Your task to perform on an android device: turn on bluetooth scan Image 0: 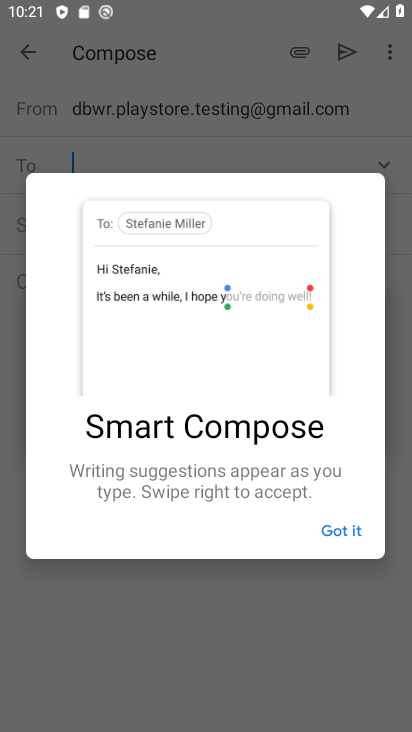
Step 0: press home button
Your task to perform on an android device: turn on bluetooth scan Image 1: 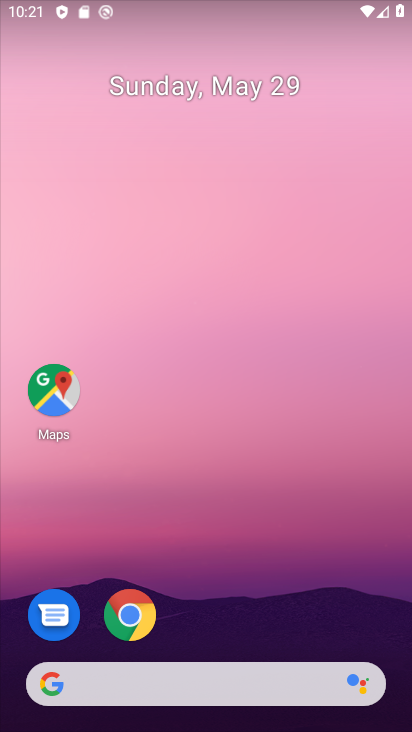
Step 1: drag from (358, 591) to (371, 164)
Your task to perform on an android device: turn on bluetooth scan Image 2: 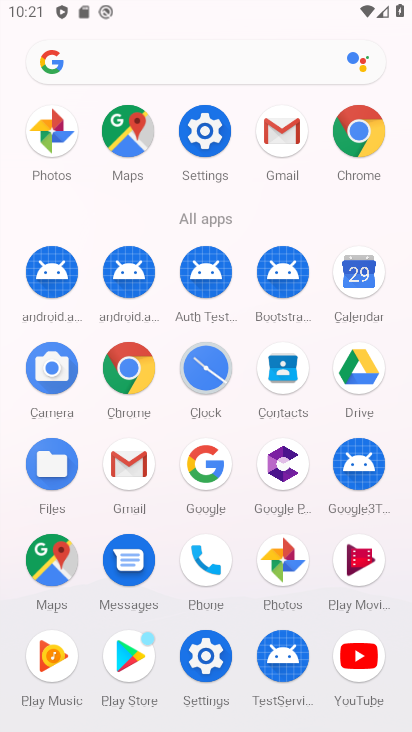
Step 2: click (213, 676)
Your task to perform on an android device: turn on bluetooth scan Image 3: 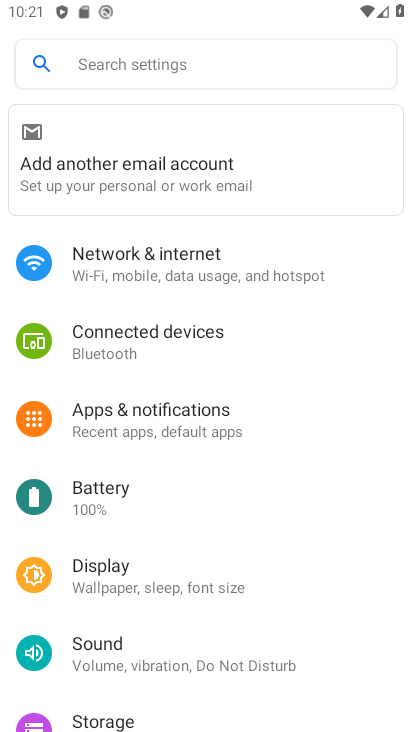
Step 3: drag from (344, 307) to (357, 490)
Your task to perform on an android device: turn on bluetooth scan Image 4: 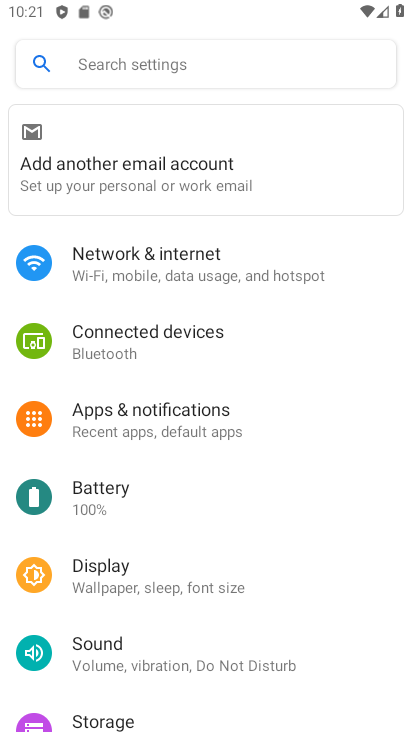
Step 4: drag from (356, 600) to (360, 515)
Your task to perform on an android device: turn on bluetooth scan Image 5: 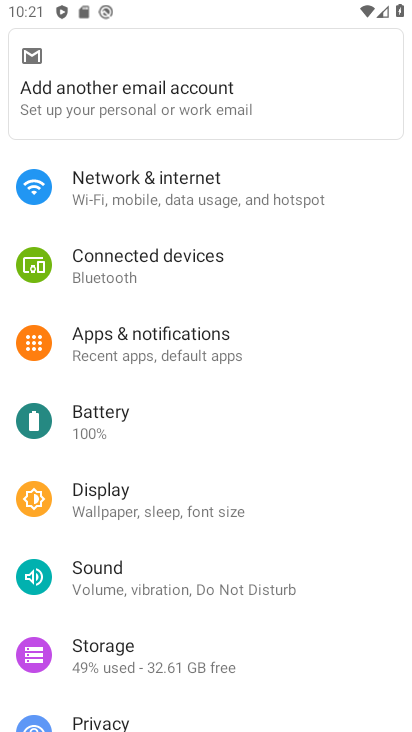
Step 5: drag from (362, 627) to (359, 518)
Your task to perform on an android device: turn on bluetooth scan Image 6: 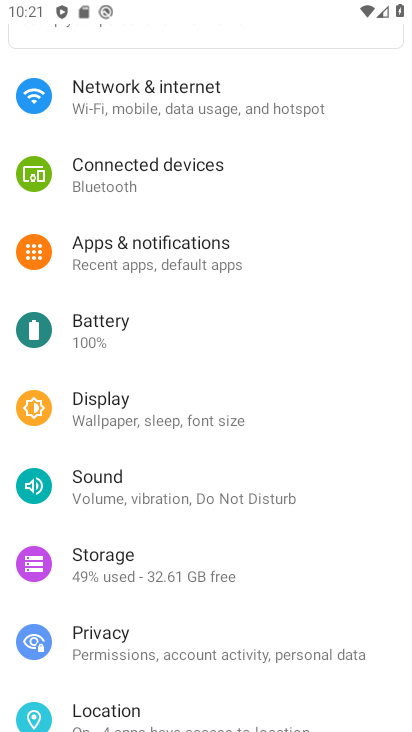
Step 6: drag from (357, 663) to (361, 566)
Your task to perform on an android device: turn on bluetooth scan Image 7: 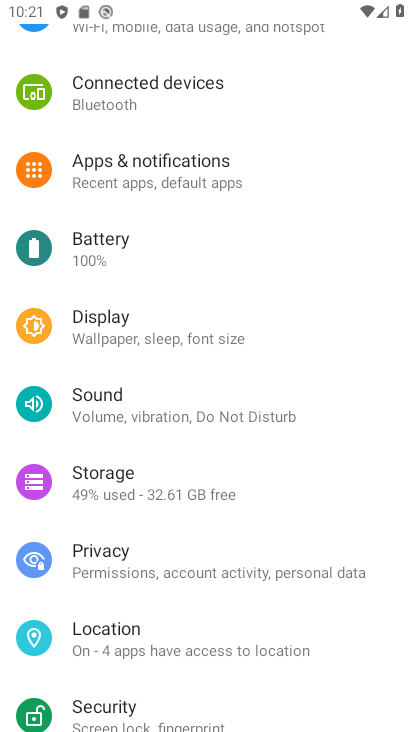
Step 7: drag from (350, 642) to (369, 551)
Your task to perform on an android device: turn on bluetooth scan Image 8: 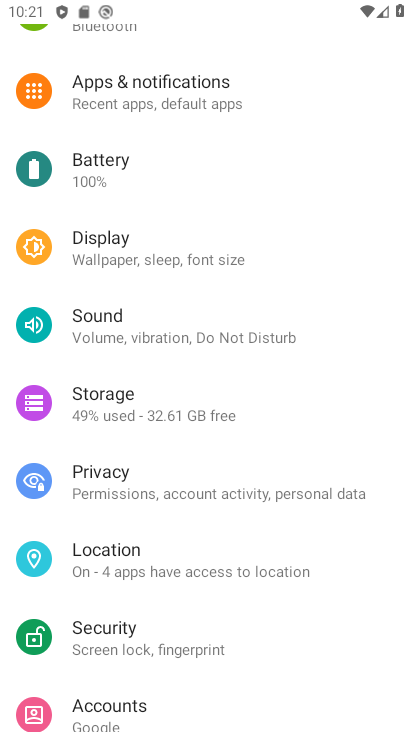
Step 8: drag from (363, 674) to (374, 588)
Your task to perform on an android device: turn on bluetooth scan Image 9: 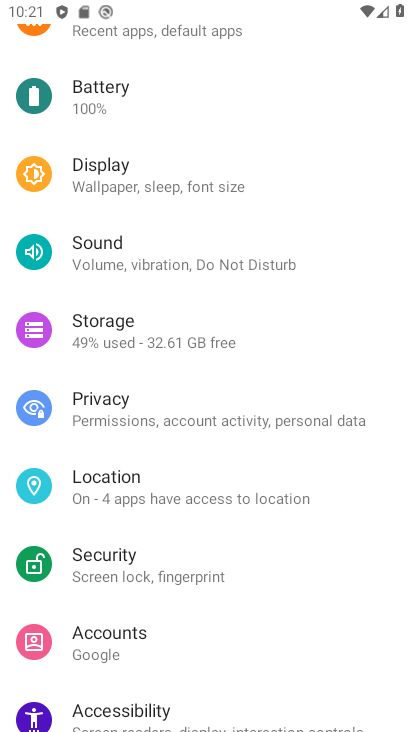
Step 9: drag from (362, 661) to (362, 570)
Your task to perform on an android device: turn on bluetooth scan Image 10: 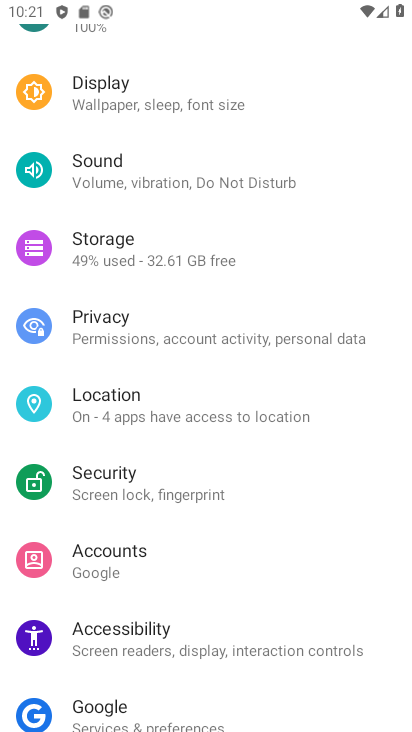
Step 10: drag from (360, 672) to (364, 581)
Your task to perform on an android device: turn on bluetooth scan Image 11: 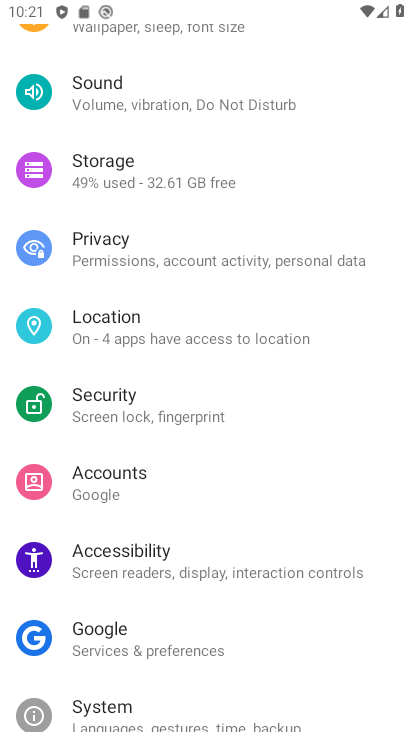
Step 11: drag from (356, 650) to (362, 479)
Your task to perform on an android device: turn on bluetooth scan Image 12: 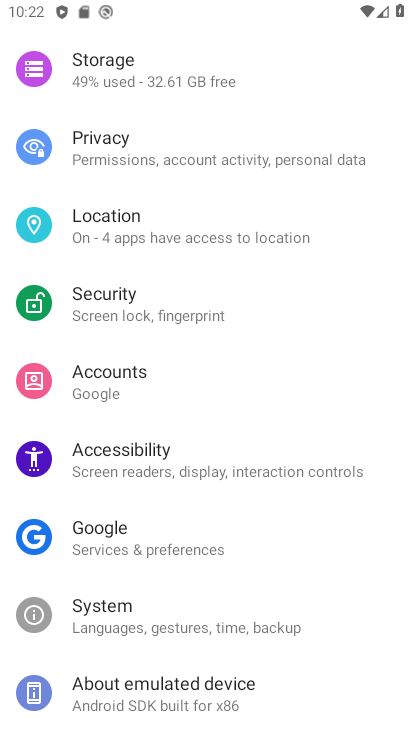
Step 12: drag from (320, 651) to (326, 433)
Your task to perform on an android device: turn on bluetooth scan Image 13: 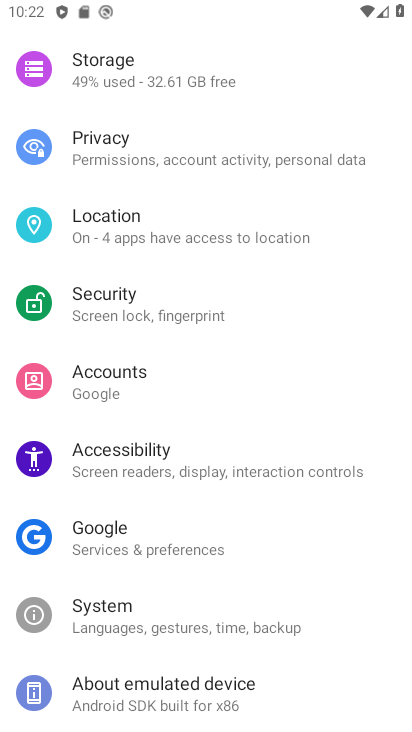
Step 13: drag from (323, 341) to (333, 433)
Your task to perform on an android device: turn on bluetooth scan Image 14: 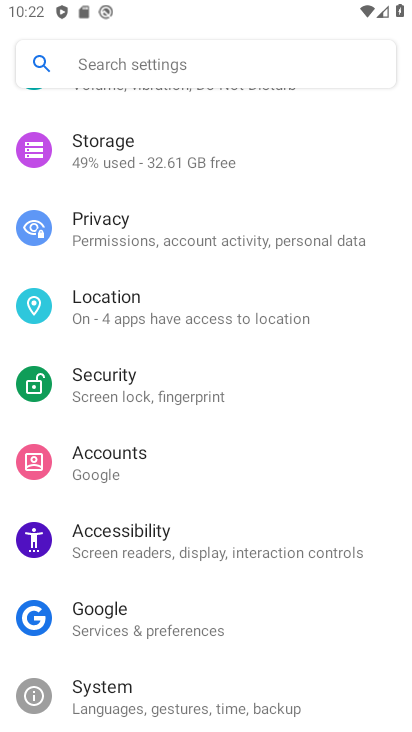
Step 14: drag from (356, 304) to (369, 439)
Your task to perform on an android device: turn on bluetooth scan Image 15: 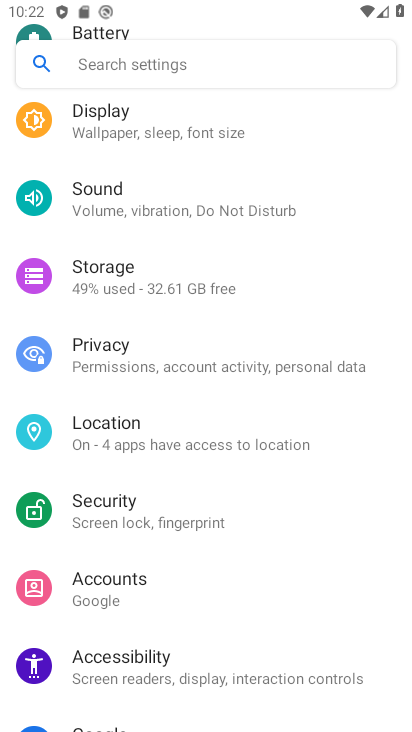
Step 15: drag from (370, 385) to (387, 514)
Your task to perform on an android device: turn on bluetooth scan Image 16: 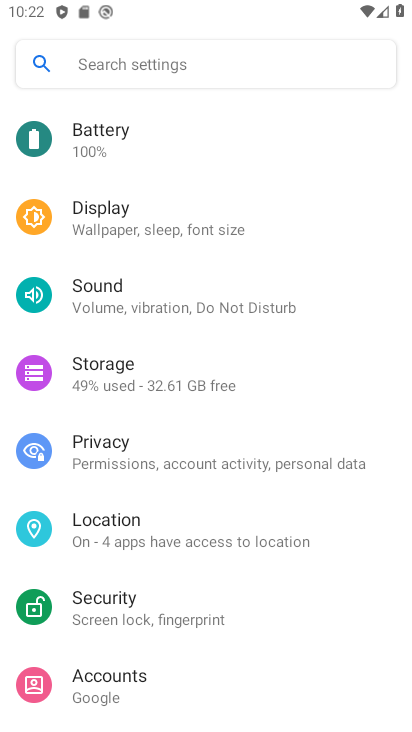
Step 16: click (272, 546)
Your task to perform on an android device: turn on bluetooth scan Image 17: 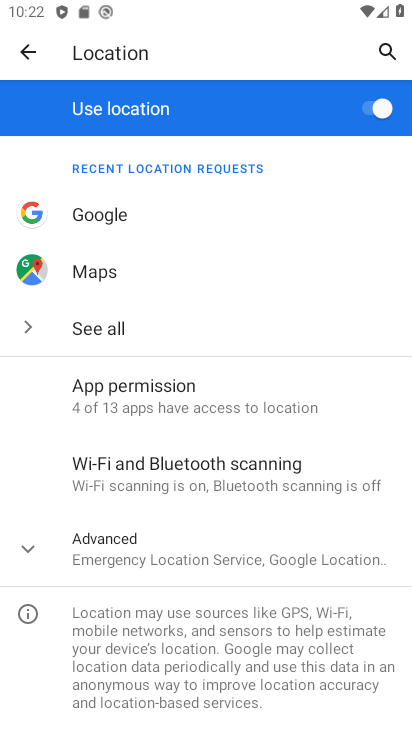
Step 17: click (296, 493)
Your task to perform on an android device: turn on bluetooth scan Image 18: 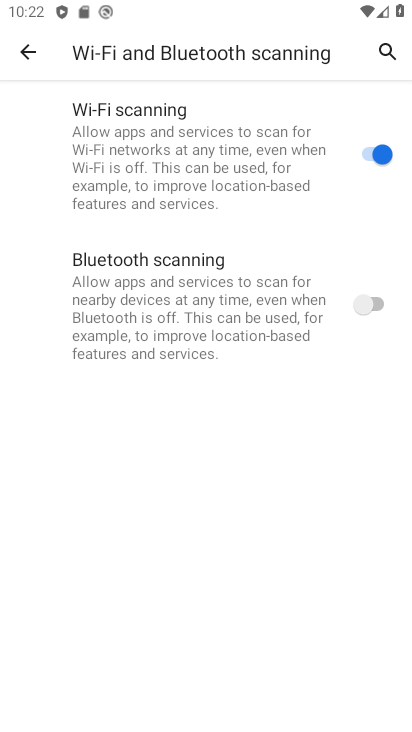
Step 18: click (355, 308)
Your task to perform on an android device: turn on bluetooth scan Image 19: 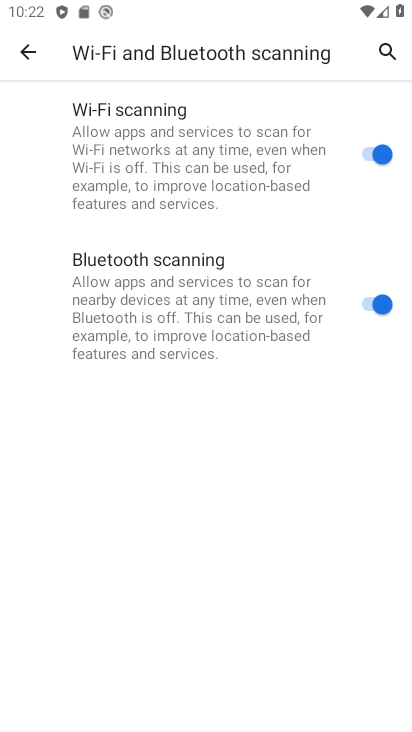
Step 19: task complete